Your task to perform on an android device: turn off notifications settings in the gmail app Image 0: 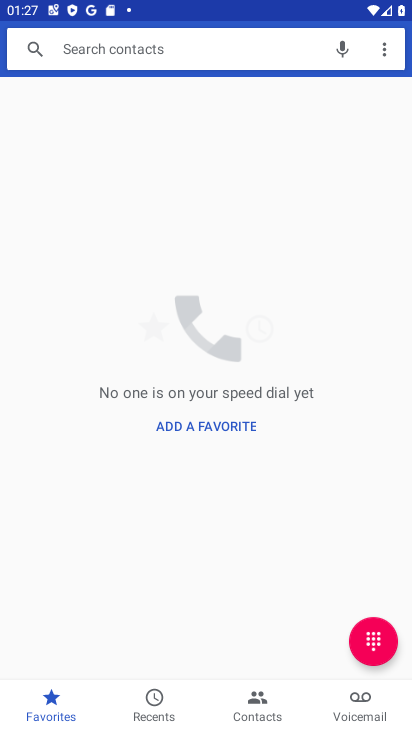
Step 0: press home button
Your task to perform on an android device: turn off notifications settings in the gmail app Image 1: 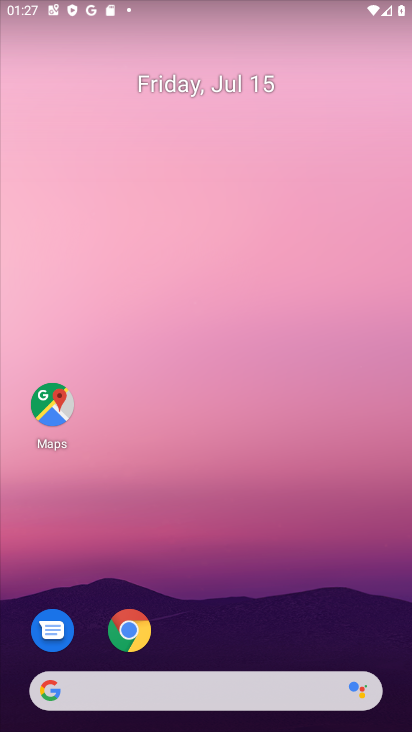
Step 1: drag from (245, 392) to (237, 201)
Your task to perform on an android device: turn off notifications settings in the gmail app Image 2: 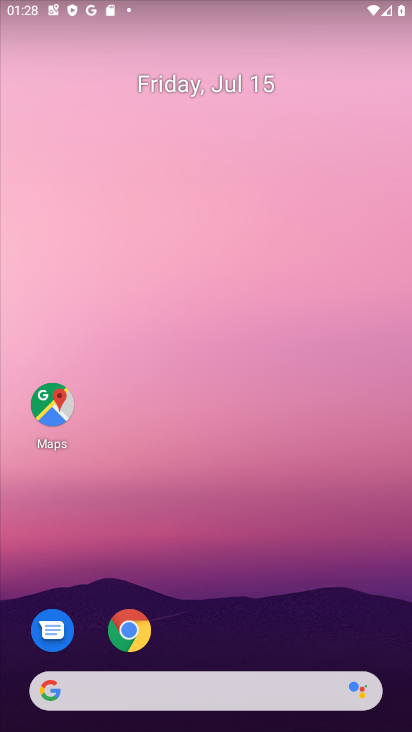
Step 2: drag from (254, 646) to (198, 97)
Your task to perform on an android device: turn off notifications settings in the gmail app Image 3: 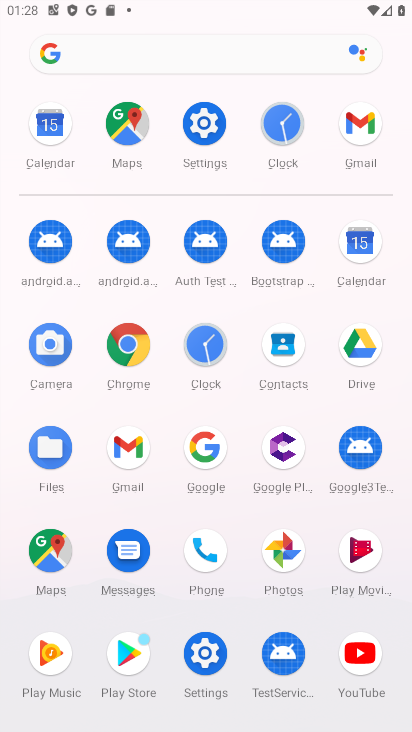
Step 3: click (138, 466)
Your task to perform on an android device: turn off notifications settings in the gmail app Image 4: 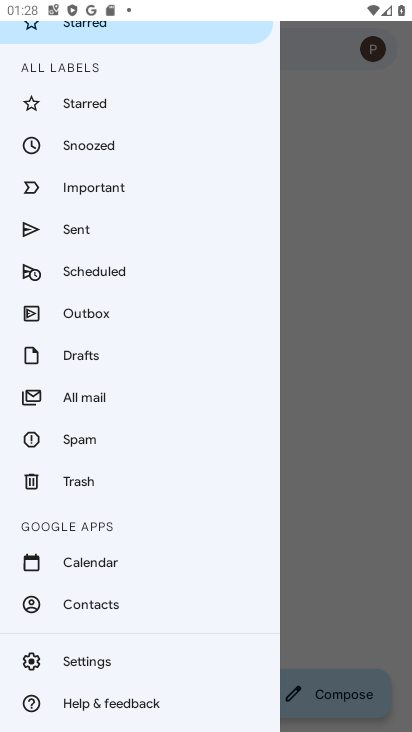
Step 4: task complete